Your task to perform on an android device: set the stopwatch Image 0: 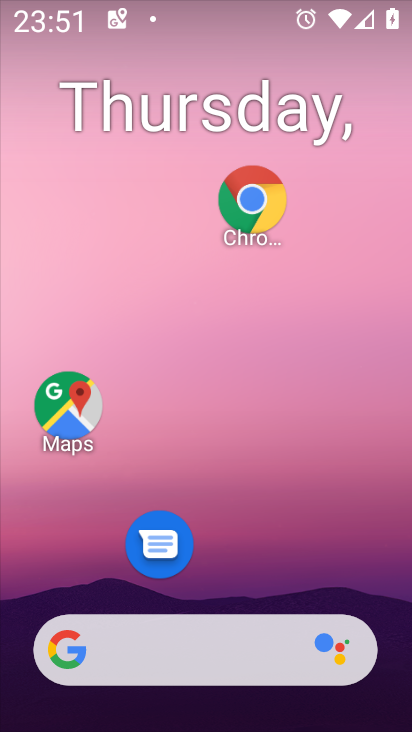
Step 0: drag from (197, 561) to (164, 84)
Your task to perform on an android device: set the stopwatch Image 1: 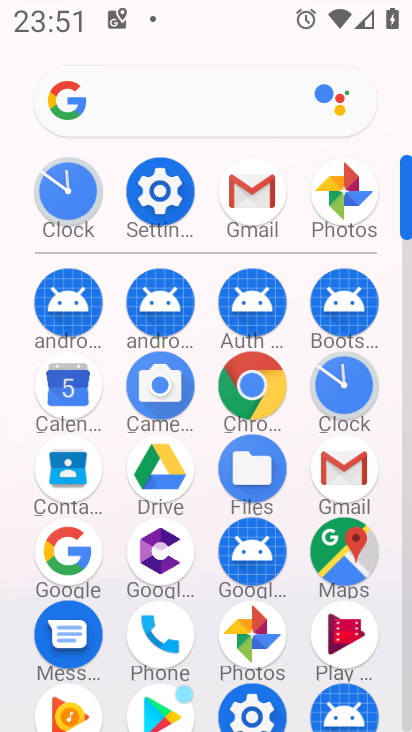
Step 1: click (47, 201)
Your task to perform on an android device: set the stopwatch Image 2: 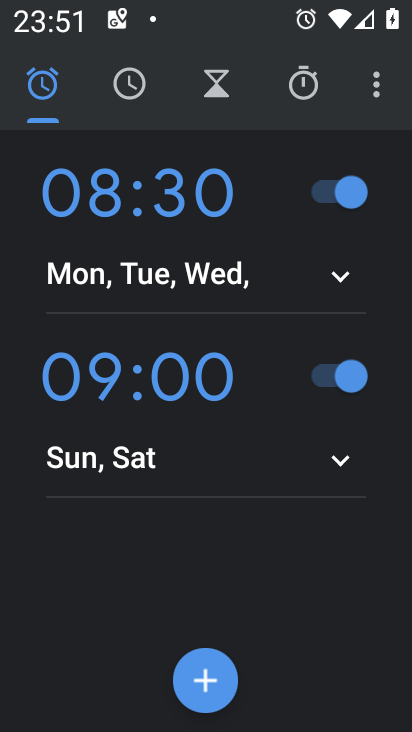
Step 2: click (314, 92)
Your task to perform on an android device: set the stopwatch Image 3: 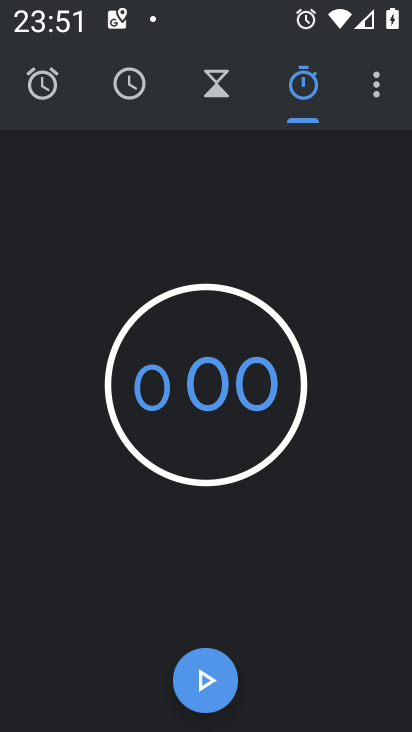
Step 3: click (222, 675)
Your task to perform on an android device: set the stopwatch Image 4: 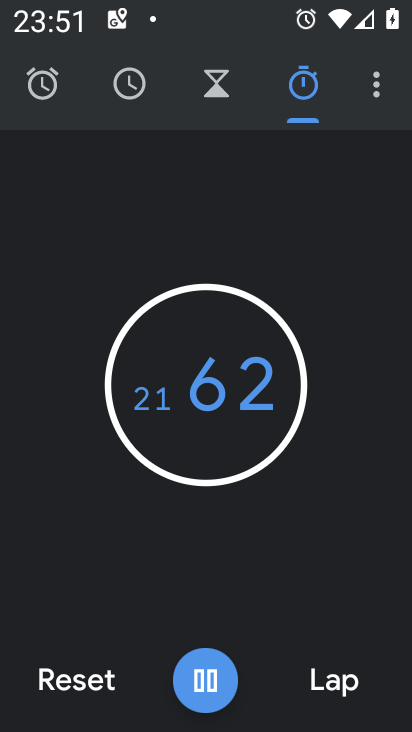
Step 4: task complete